Your task to perform on an android device: Open accessibility settings Image 0: 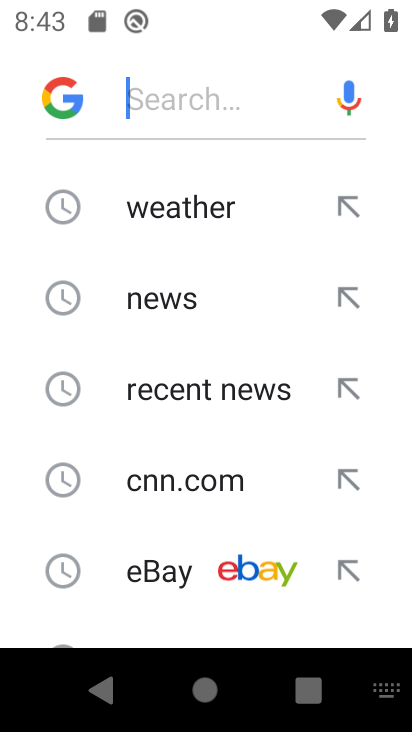
Step 0: press home button
Your task to perform on an android device: Open accessibility settings Image 1: 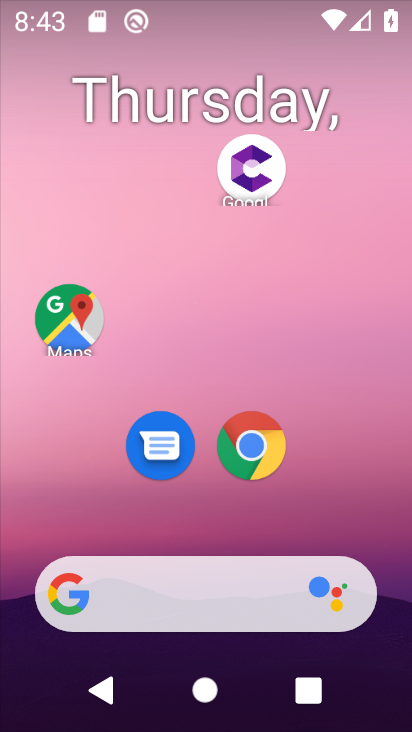
Step 1: drag from (204, 399) to (244, 14)
Your task to perform on an android device: Open accessibility settings Image 2: 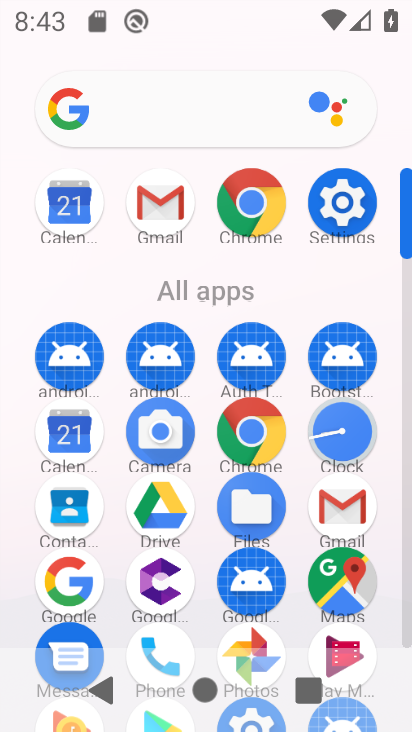
Step 2: click (336, 193)
Your task to perform on an android device: Open accessibility settings Image 3: 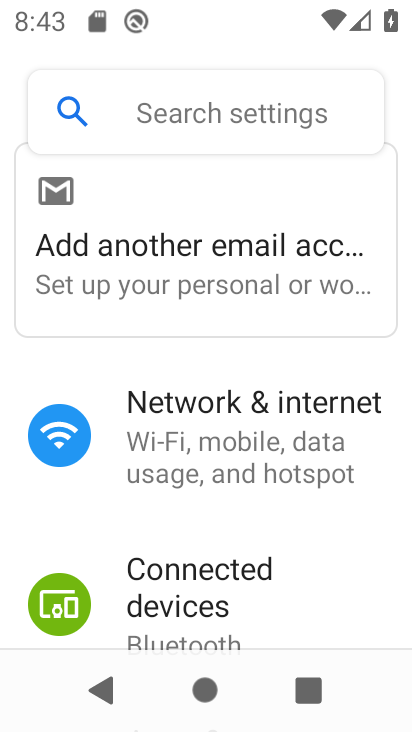
Step 3: drag from (254, 621) to (241, 40)
Your task to perform on an android device: Open accessibility settings Image 4: 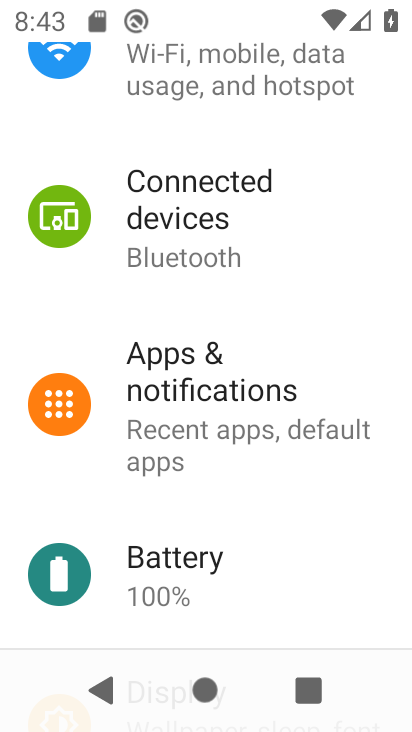
Step 4: drag from (216, 311) to (211, 67)
Your task to perform on an android device: Open accessibility settings Image 5: 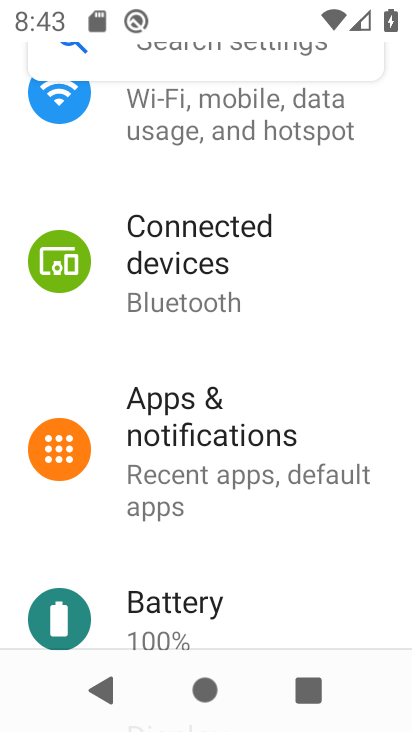
Step 5: drag from (225, 618) to (284, 16)
Your task to perform on an android device: Open accessibility settings Image 6: 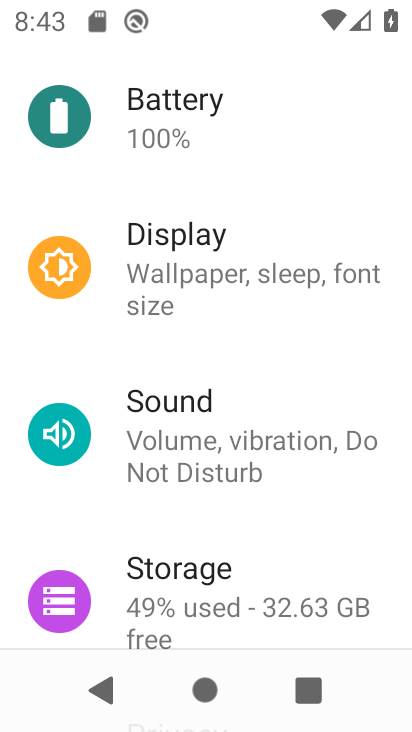
Step 6: drag from (243, 551) to (250, 55)
Your task to perform on an android device: Open accessibility settings Image 7: 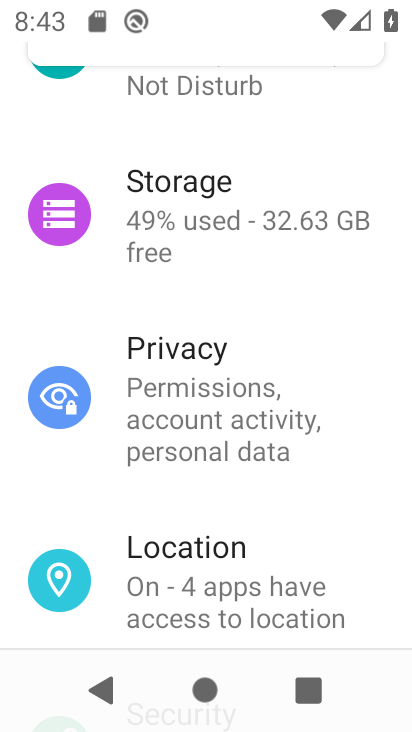
Step 7: drag from (196, 604) to (206, 33)
Your task to perform on an android device: Open accessibility settings Image 8: 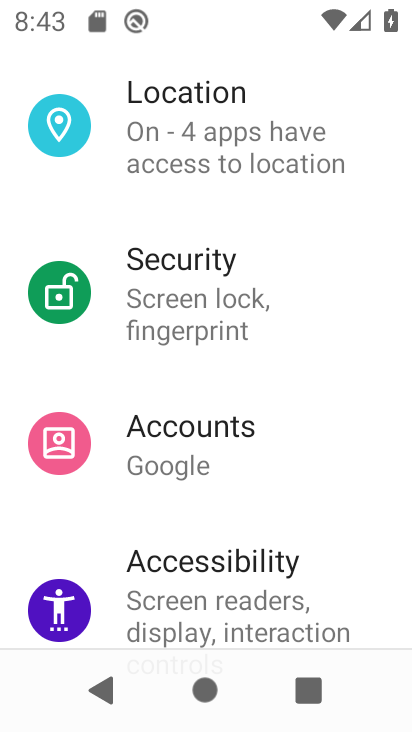
Step 8: click (210, 598)
Your task to perform on an android device: Open accessibility settings Image 9: 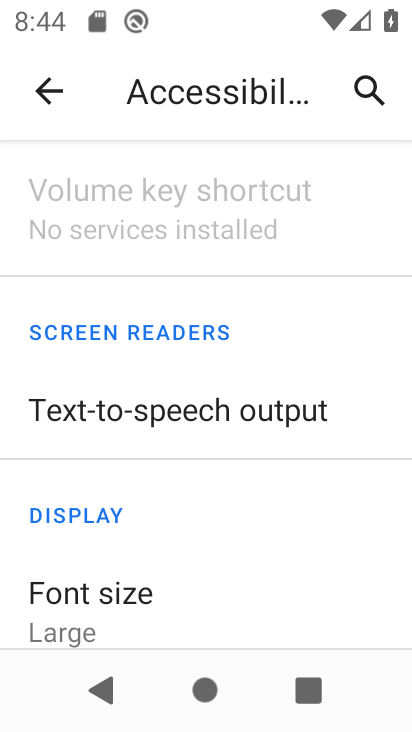
Step 9: task complete